Your task to perform on an android device: Go to ESPN.com Image 0: 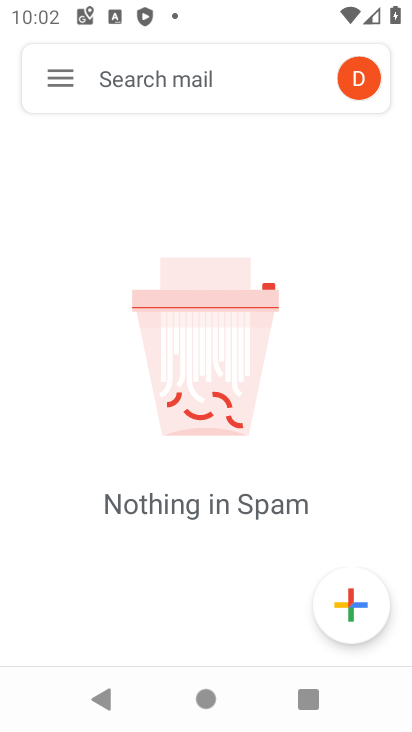
Step 0: press home button
Your task to perform on an android device: Go to ESPN.com Image 1: 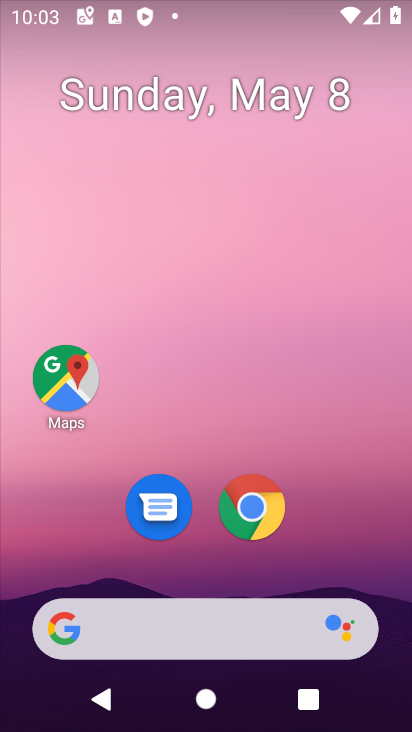
Step 1: click (273, 634)
Your task to perform on an android device: Go to ESPN.com Image 2: 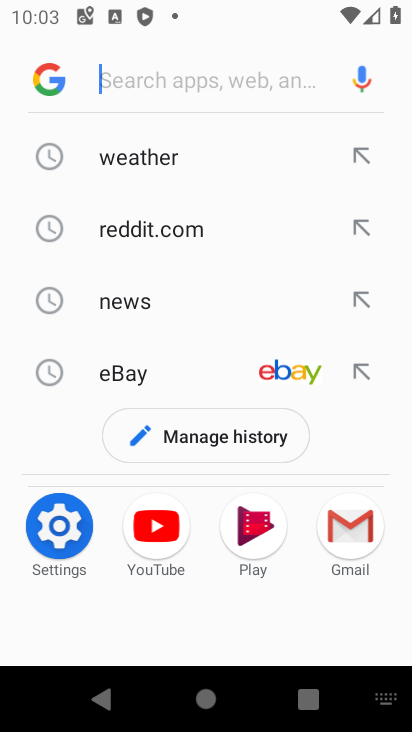
Step 2: type "espn.com"
Your task to perform on an android device: Go to ESPN.com Image 3: 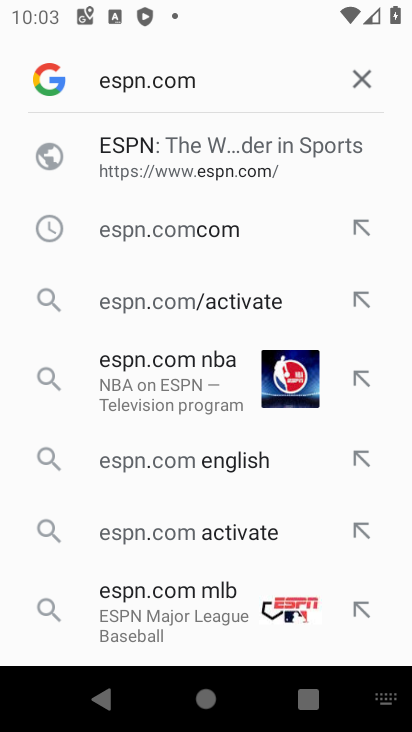
Step 3: click (241, 158)
Your task to perform on an android device: Go to ESPN.com Image 4: 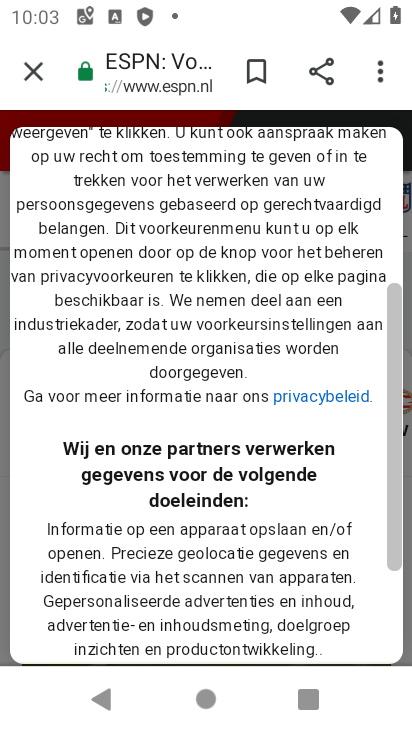
Step 4: task complete